Your task to perform on an android device: Open calendar and show me the second week of next month Image 0: 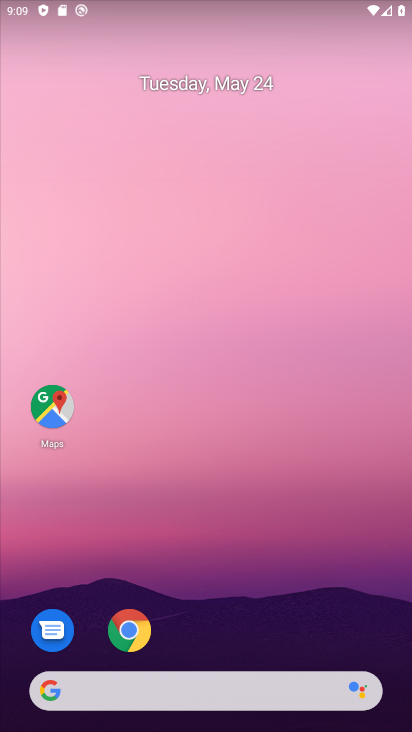
Step 0: press home button
Your task to perform on an android device: Open calendar and show me the second week of next month Image 1: 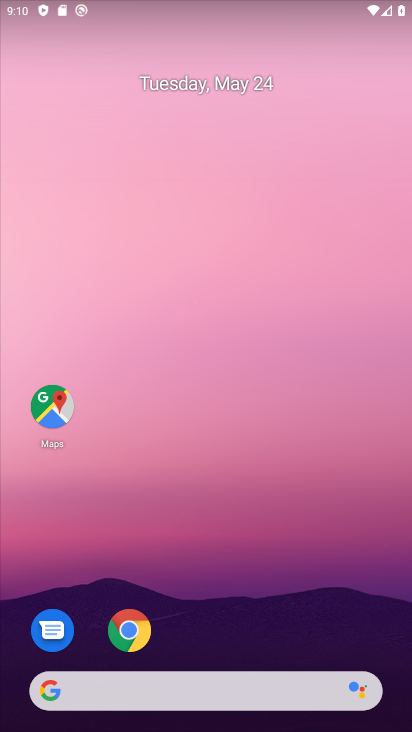
Step 1: drag from (206, 644) to (219, 65)
Your task to perform on an android device: Open calendar and show me the second week of next month Image 2: 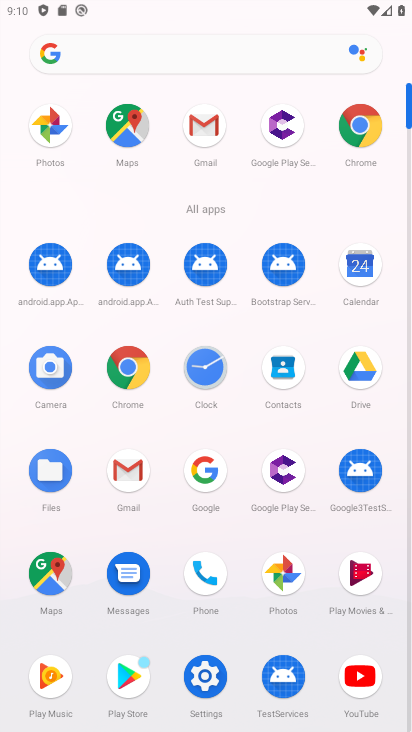
Step 2: click (362, 260)
Your task to perform on an android device: Open calendar and show me the second week of next month Image 3: 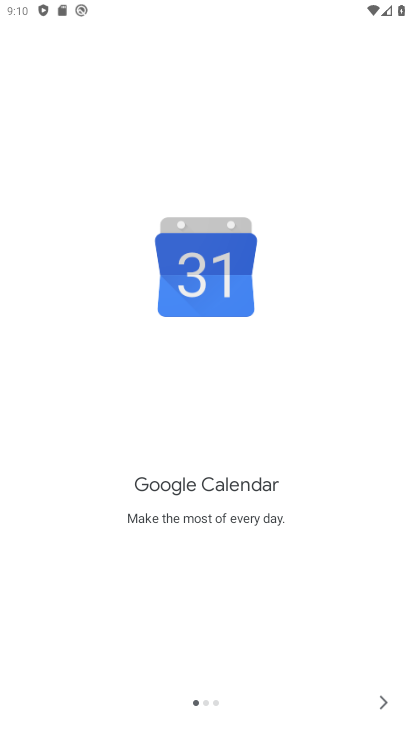
Step 3: click (383, 698)
Your task to perform on an android device: Open calendar and show me the second week of next month Image 4: 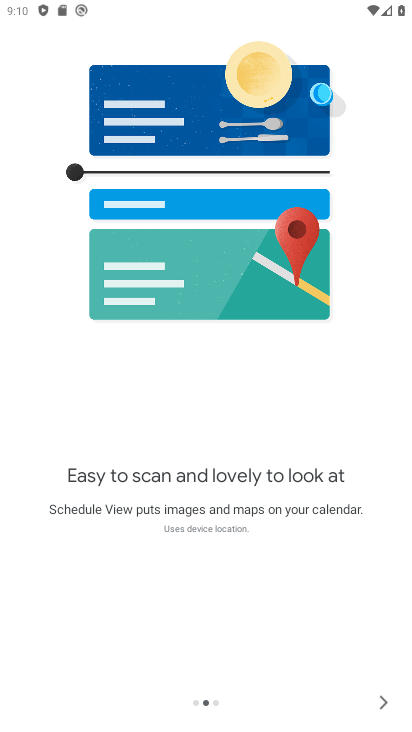
Step 4: click (383, 698)
Your task to perform on an android device: Open calendar and show me the second week of next month Image 5: 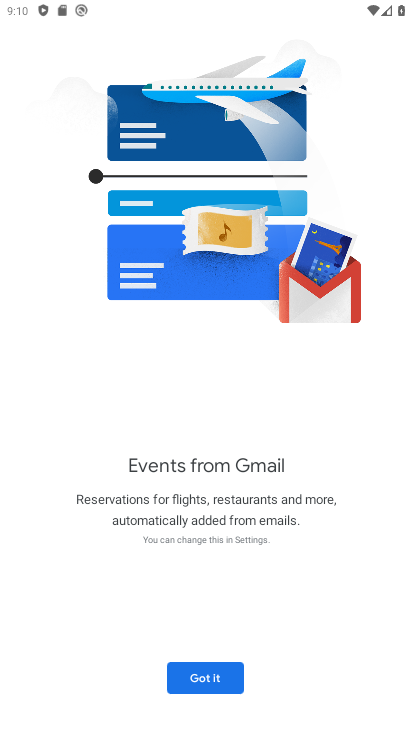
Step 5: click (199, 676)
Your task to perform on an android device: Open calendar and show me the second week of next month Image 6: 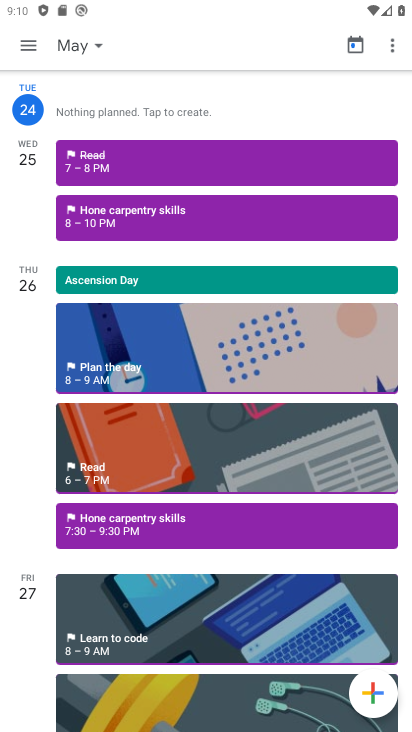
Step 6: click (99, 50)
Your task to perform on an android device: Open calendar and show me the second week of next month Image 7: 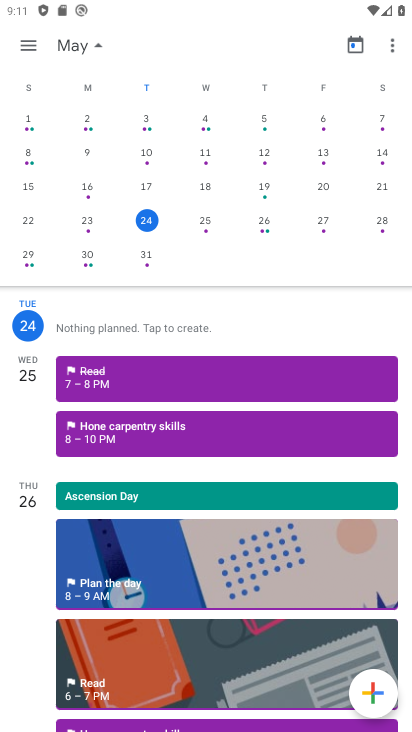
Step 7: drag from (4, 187) to (4, 316)
Your task to perform on an android device: Open calendar and show me the second week of next month Image 8: 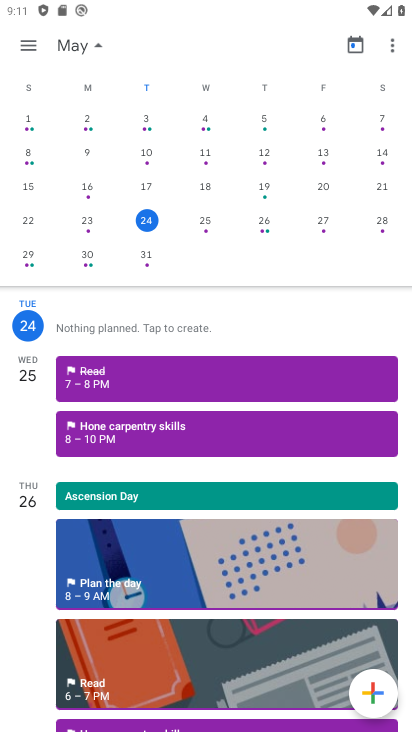
Step 8: drag from (352, 162) to (50, 175)
Your task to perform on an android device: Open calendar and show me the second week of next month Image 9: 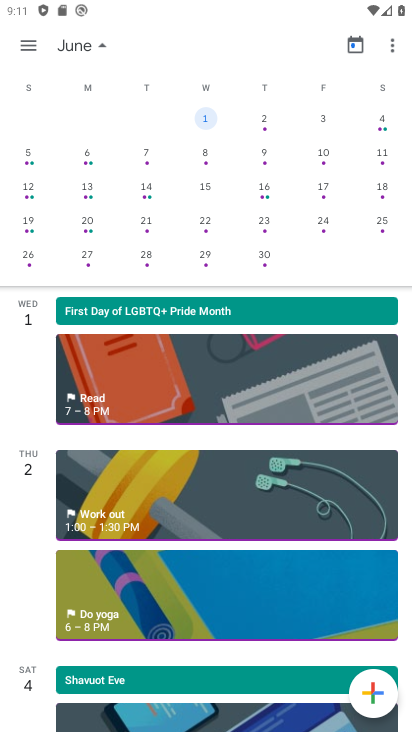
Step 9: click (26, 152)
Your task to perform on an android device: Open calendar and show me the second week of next month Image 10: 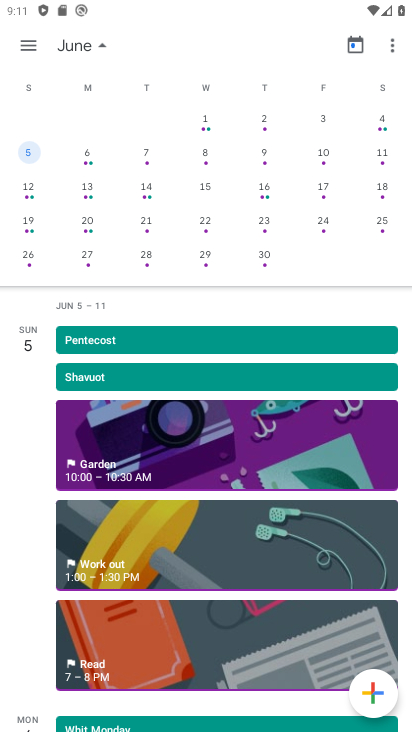
Step 10: click (97, 42)
Your task to perform on an android device: Open calendar and show me the second week of next month Image 11: 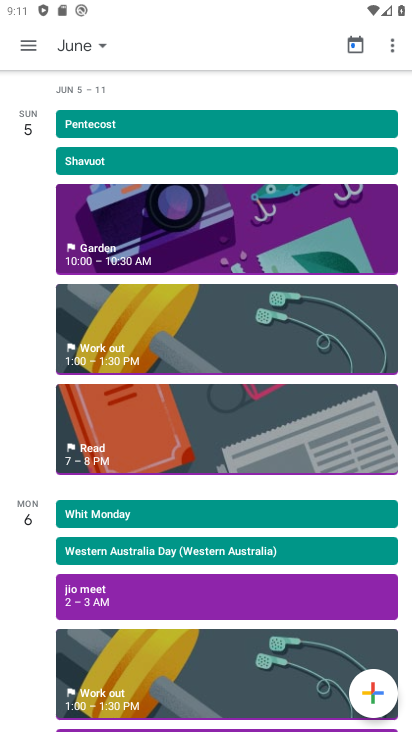
Step 11: task complete